Your task to perform on an android device: Is it going to rain tomorrow? Image 0: 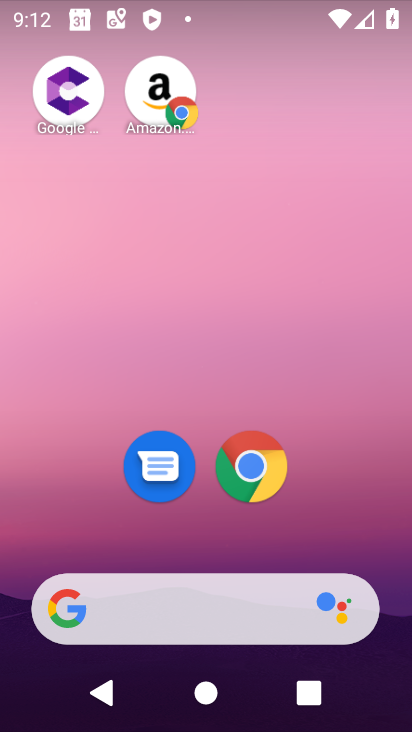
Step 0: drag from (320, 524) to (301, 175)
Your task to perform on an android device: Is it going to rain tomorrow? Image 1: 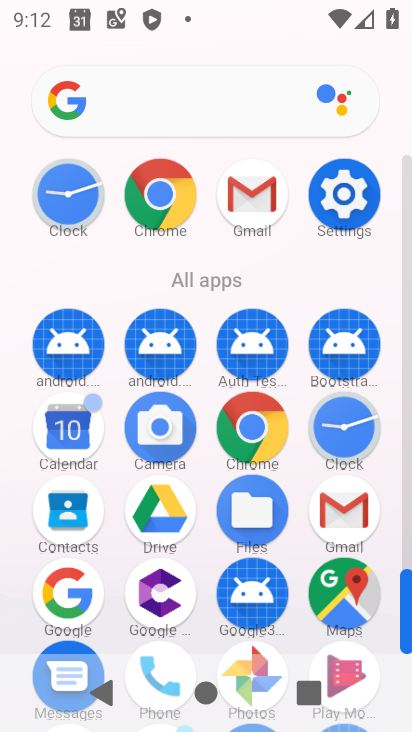
Step 1: press home button
Your task to perform on an android device: Is it going to rain tomorrow? Image 2: 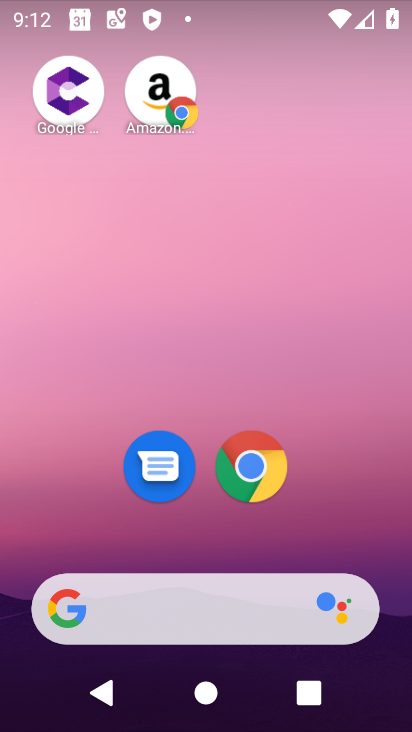
Step 2: drag from (81, 275) to (374, 263)
Your task to perform on an android device: Is it going to rain tomorrow? Image 3: 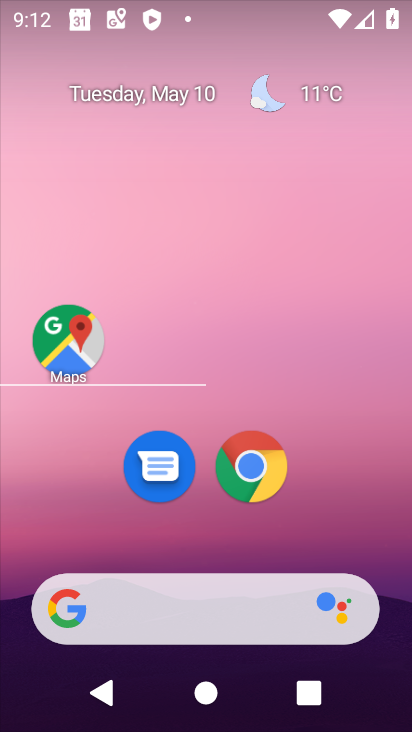
Step 3: click (48, 215)
Your task to perform on an android device: Is it going to rain tomorrow? Image 4: 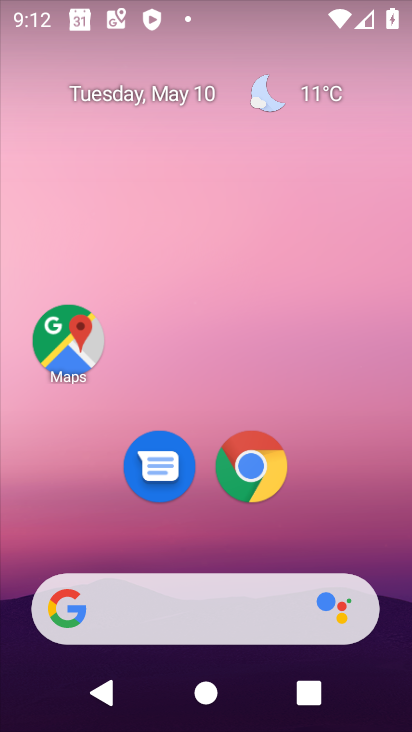
Step 4: click (298, 84)
Your task to perform on an android device: Is it going to rain tomorrow? Image 5: 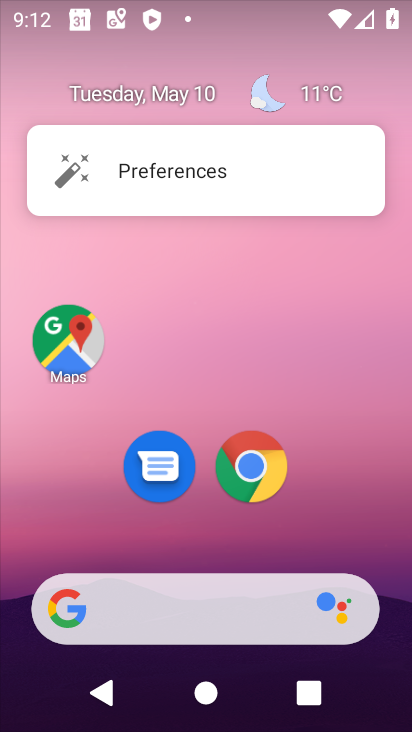
Step 5: click (312, 91)
Your task to perform on an android device: Is it going to rain tomorrow? Image 6: 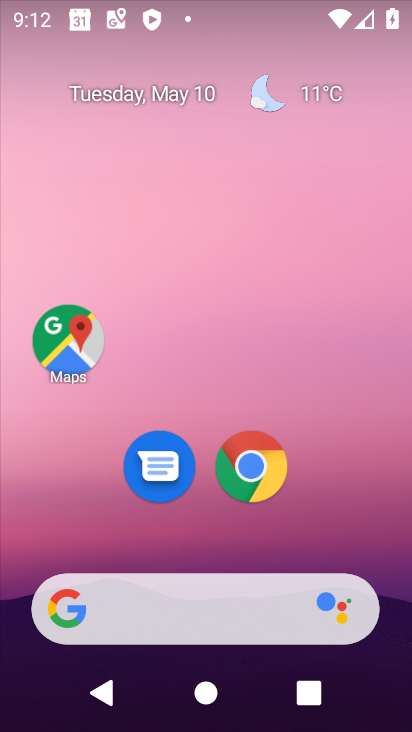
Step 6: click (333, 91)
Your task to perform on an android device: Is it going to rain tomorrow? Image 7: 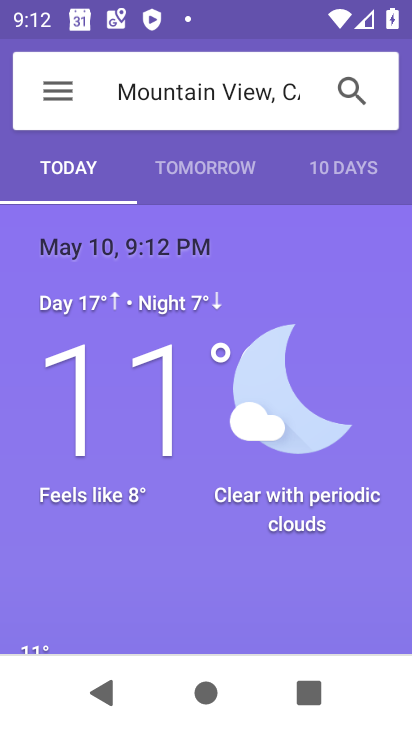
Step 7: click (204, 163)
Your task to perform on an android device: Is it going to rain tomorrow? Image 8: 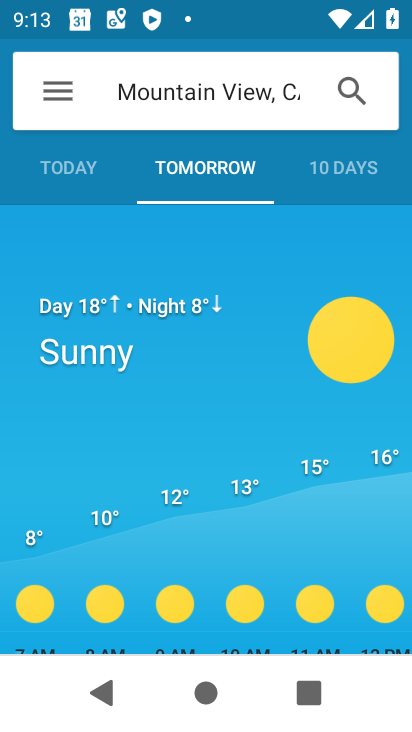
Step 8: task complete